Your task to perform on an android device: find photos in the google photos app Image 0: 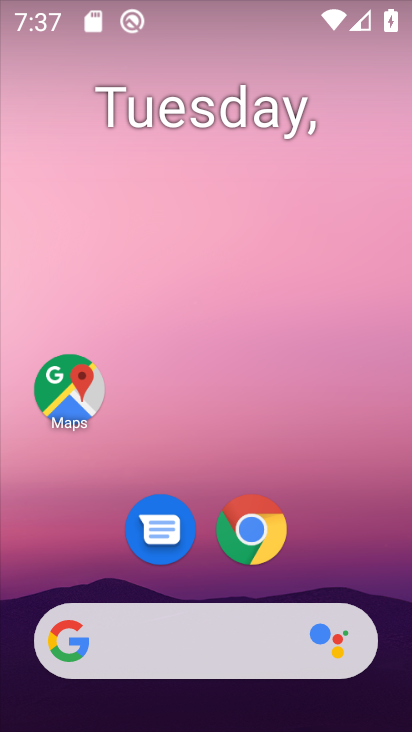
Step 0: drag from (278, 614) to (319, 1)
Your task to perform on an android device: find photos in the google photos app Image 1: 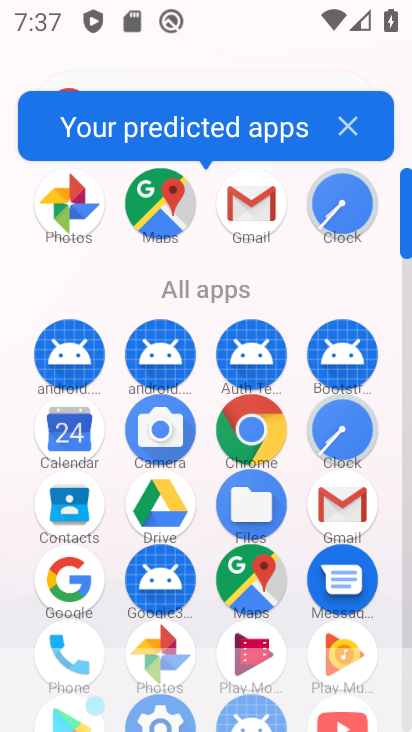
Step 1: click (158, 643)
Your task to perform on an android device: find photos in the google photos app Image 2: 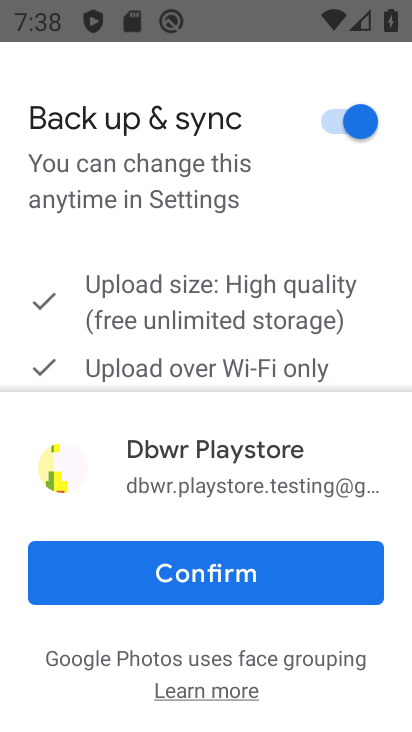
Step 2: click (257, 574)
Your task to perform on an android device: find photos in the google photos app Image 3: 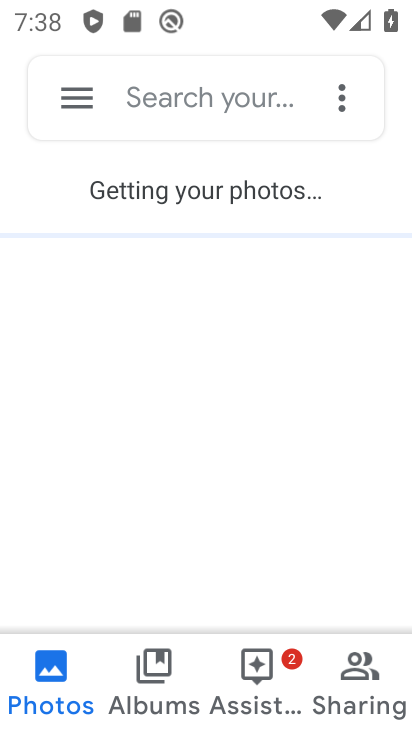
Step 3: task complete